Your task to perform on an android device: search for starred emails in the gmail app Image 0: 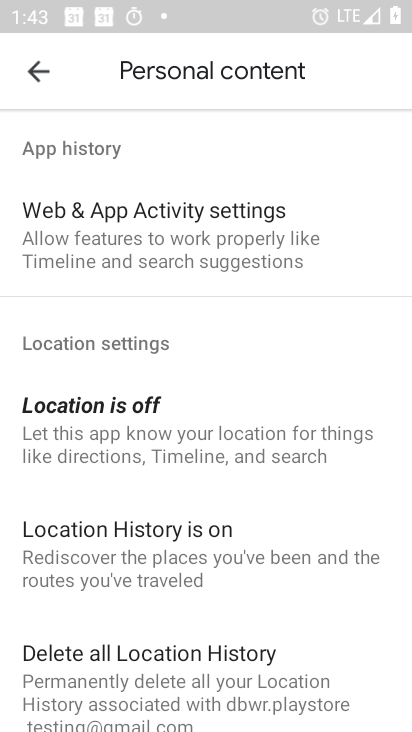
Step 0: press home button
Your task to perform on an android device: search for starred emails in the gmail app Image 1: 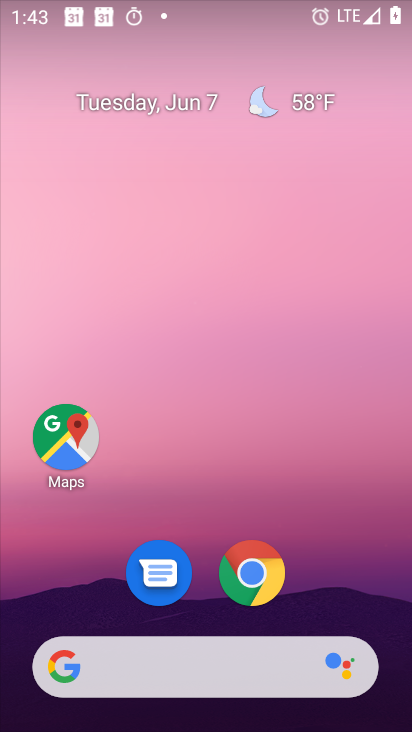
Step 1: drag from (297, 525) to (280, 66)
Your task to perform on an android device: search for starred emails in the gmail app Image 2: 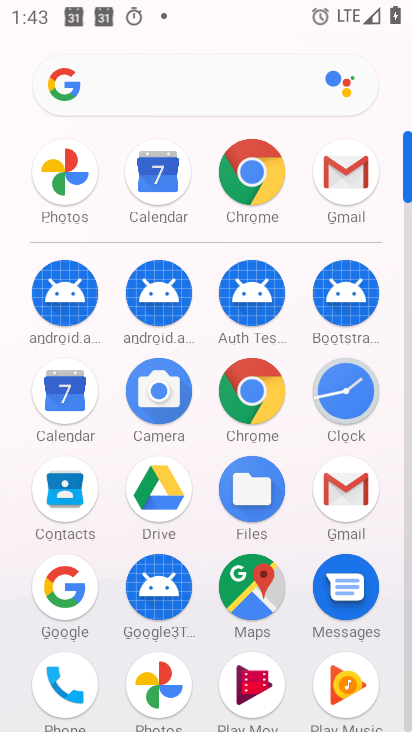
Step 2: click (360, 486)
Your task to perform on an android device: search for starred emails in the gmail app Image 3: 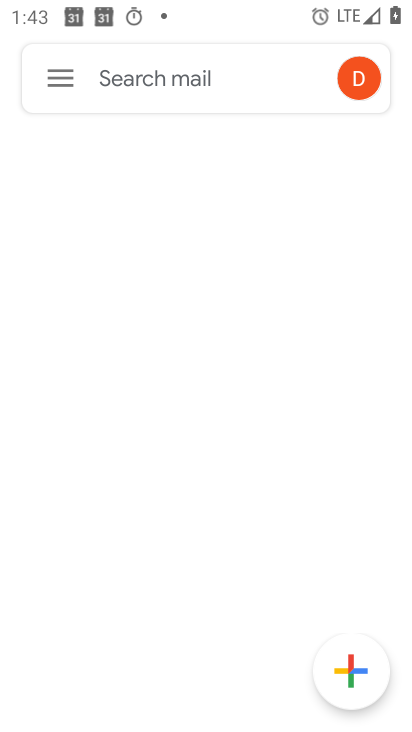
Step 3: click (75, 73)
Your task to perform on an android device: search for starred emails in the gmail app Image 4: 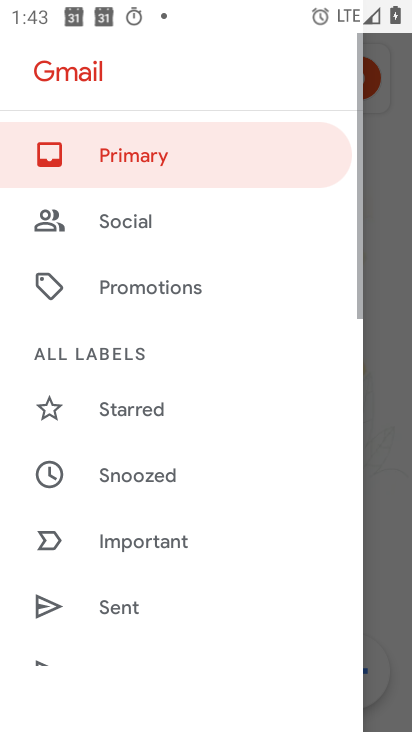
Step 4: click (130, 405)
Your task to perform on an android device: search for starred emails in the gmail app Image 5: 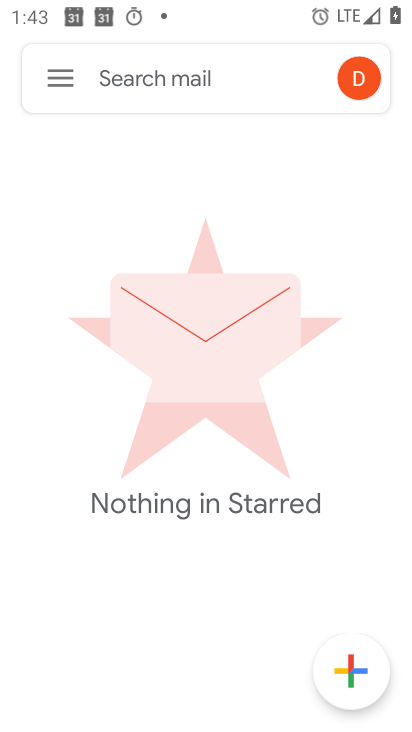
Step 5: task complete